Your task to perform on an android device: uninstall "DuckDuckGo Privacy Browser" Image 0: 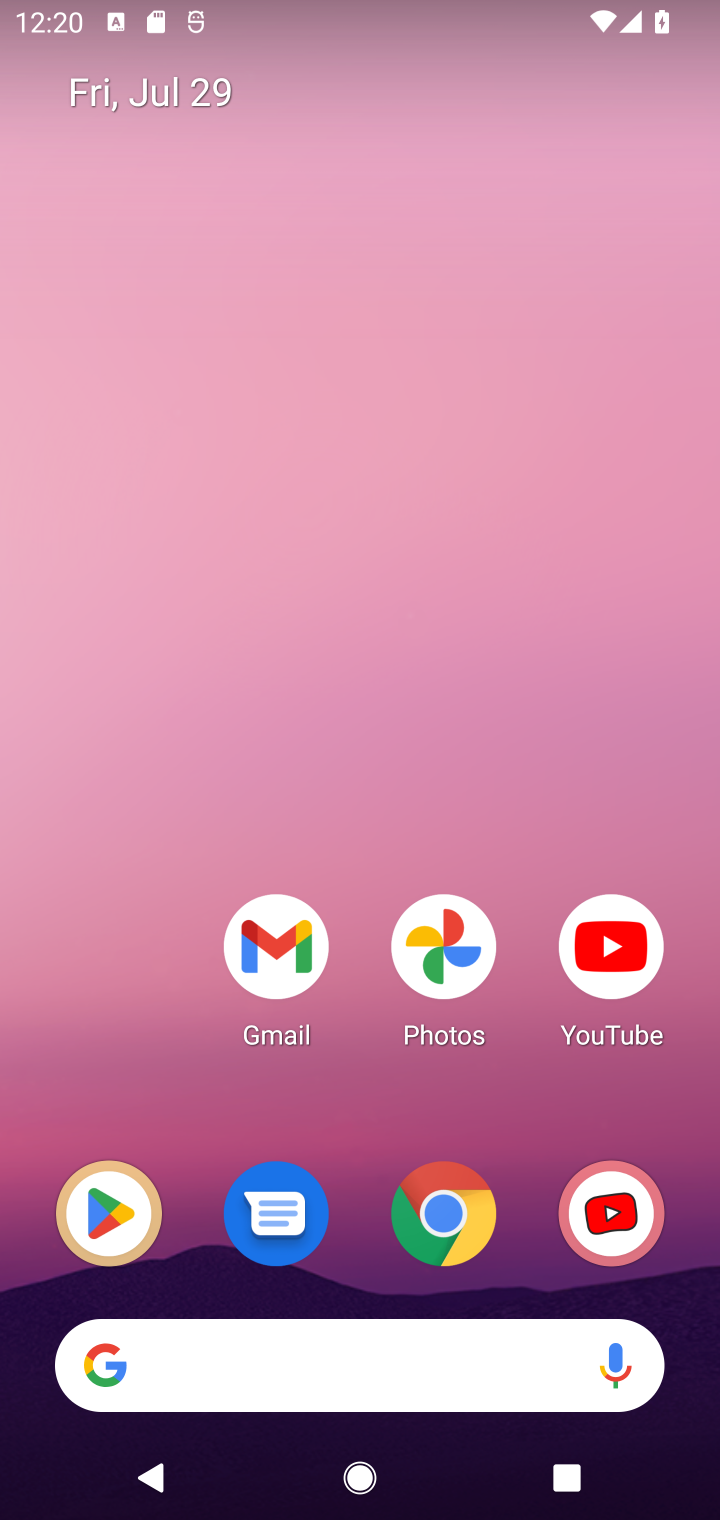
Step 0: drag from (417, 1318) to (402, 355)
Your task to perform on an android device: uninstall "DuckDuckGo Privacy Browser" Image 1: 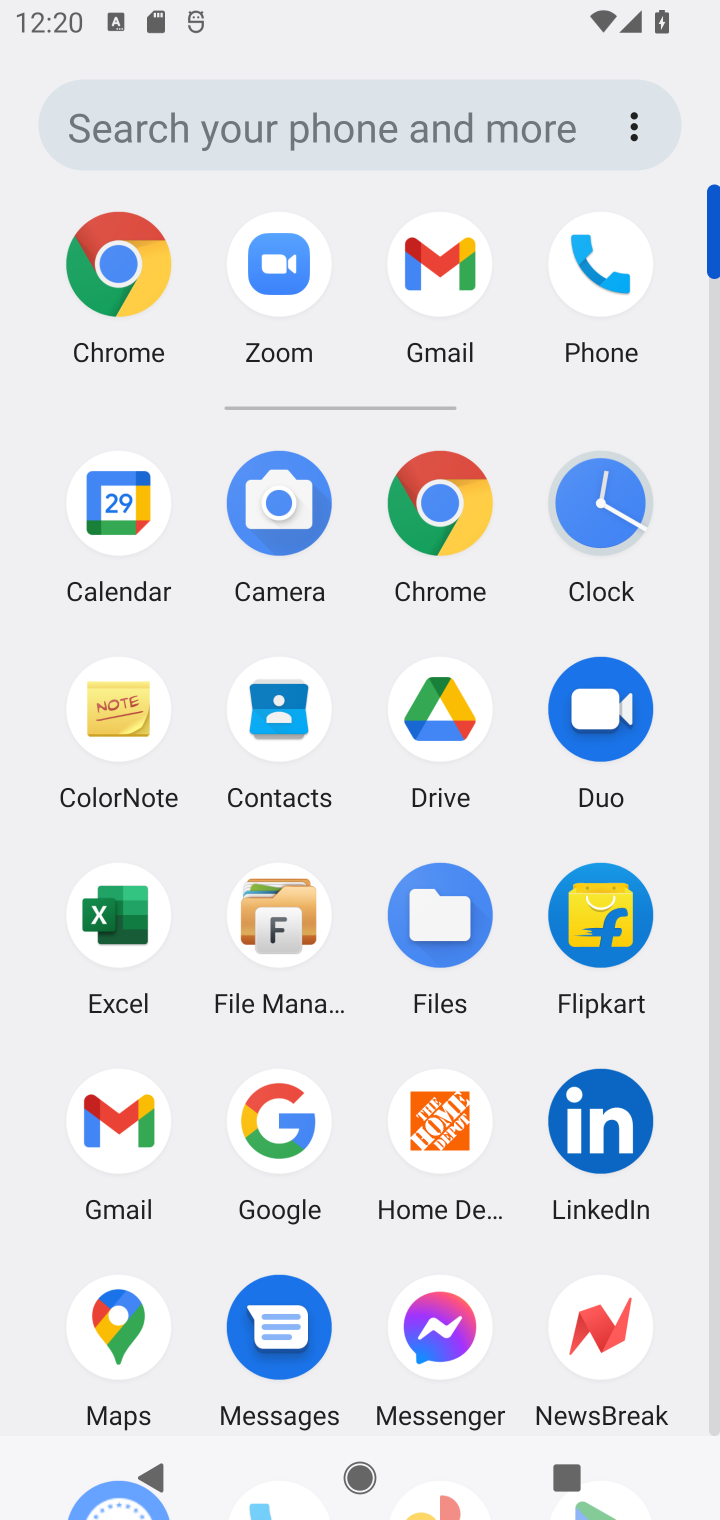
Step 1: click (208, 1383)
Your task to perform on an android device: uninstall "DuckDuckGo Privacy Browser" Image 2: 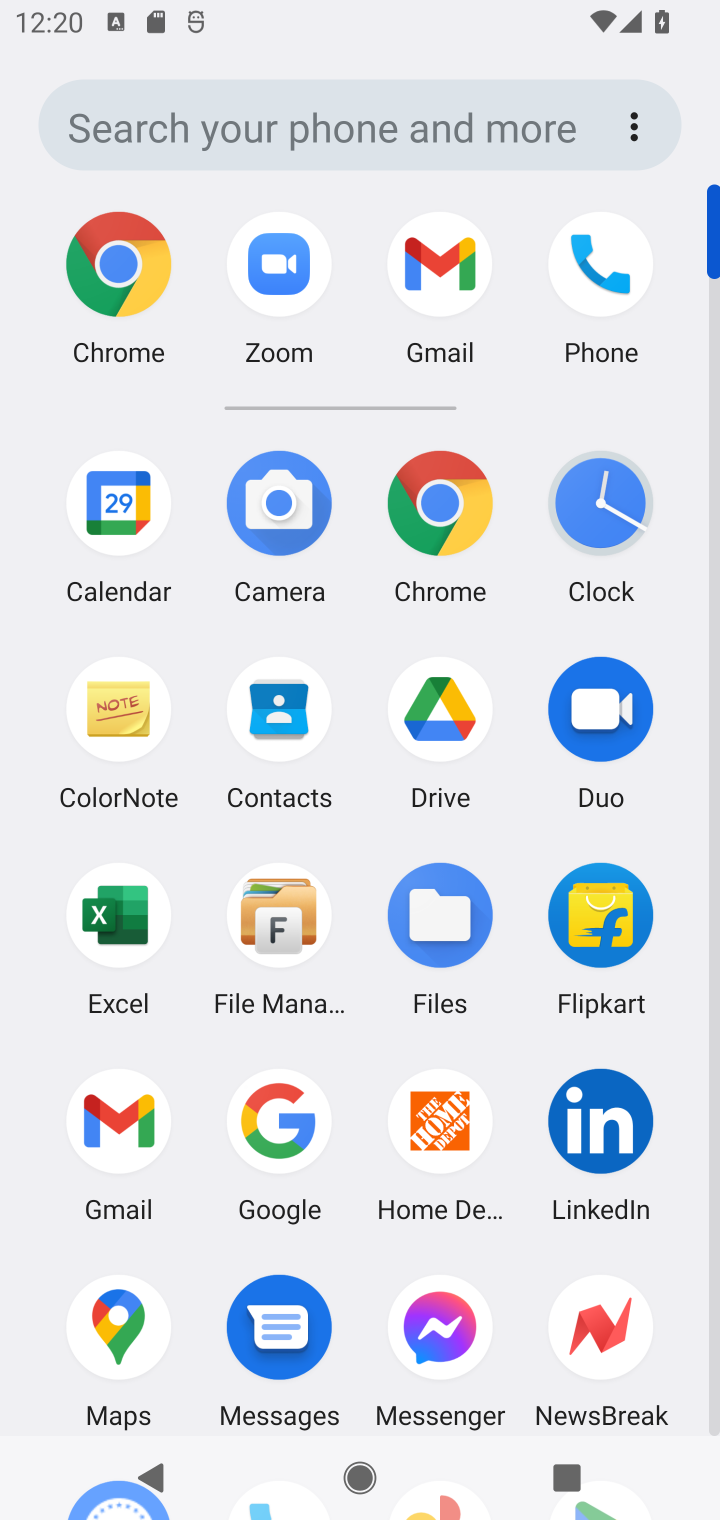
Step 2: drag from (217, 665) to (217, 556)
Your task to perform on an android device: uninstall "DuckDuckGo Privacy Browser" Image 3: 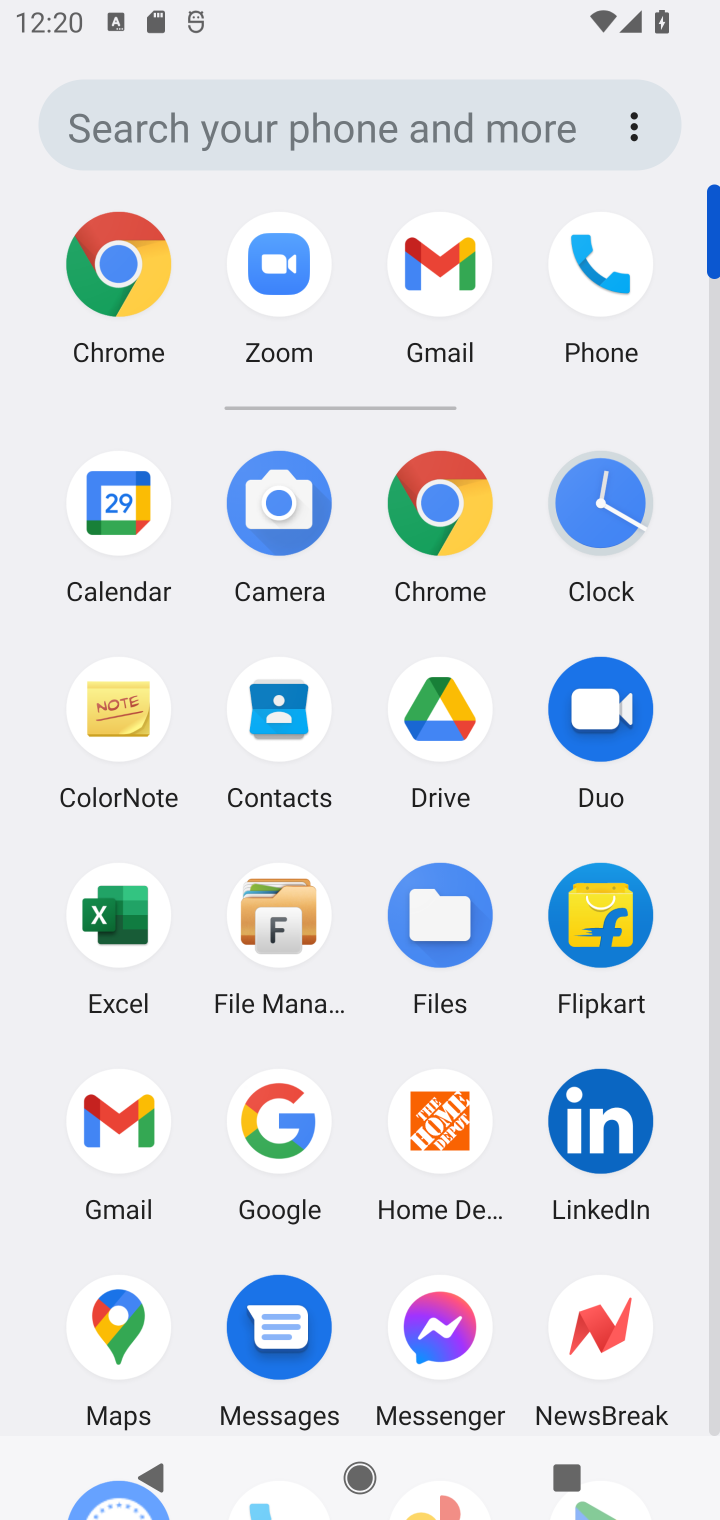
Step 3: drag from (368, 1403) to (300, 479)
Your task to perform on an android device: uninstall "DuckDuckGo Privacy Browser" Image 4: 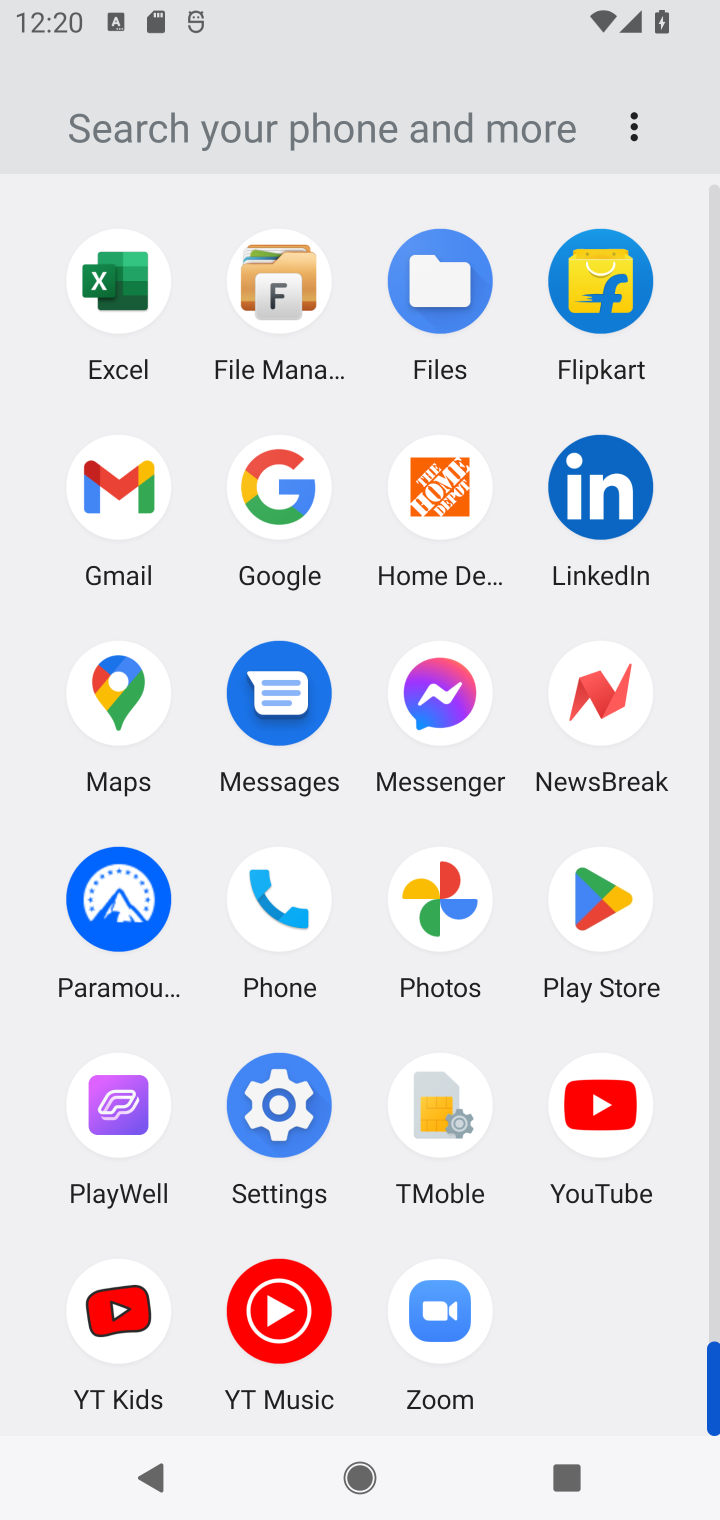
Step 4: click (589, 911)
Your task to perform on an android device: uninstall "DuckDuckGo Privacy Browser" Image 5: 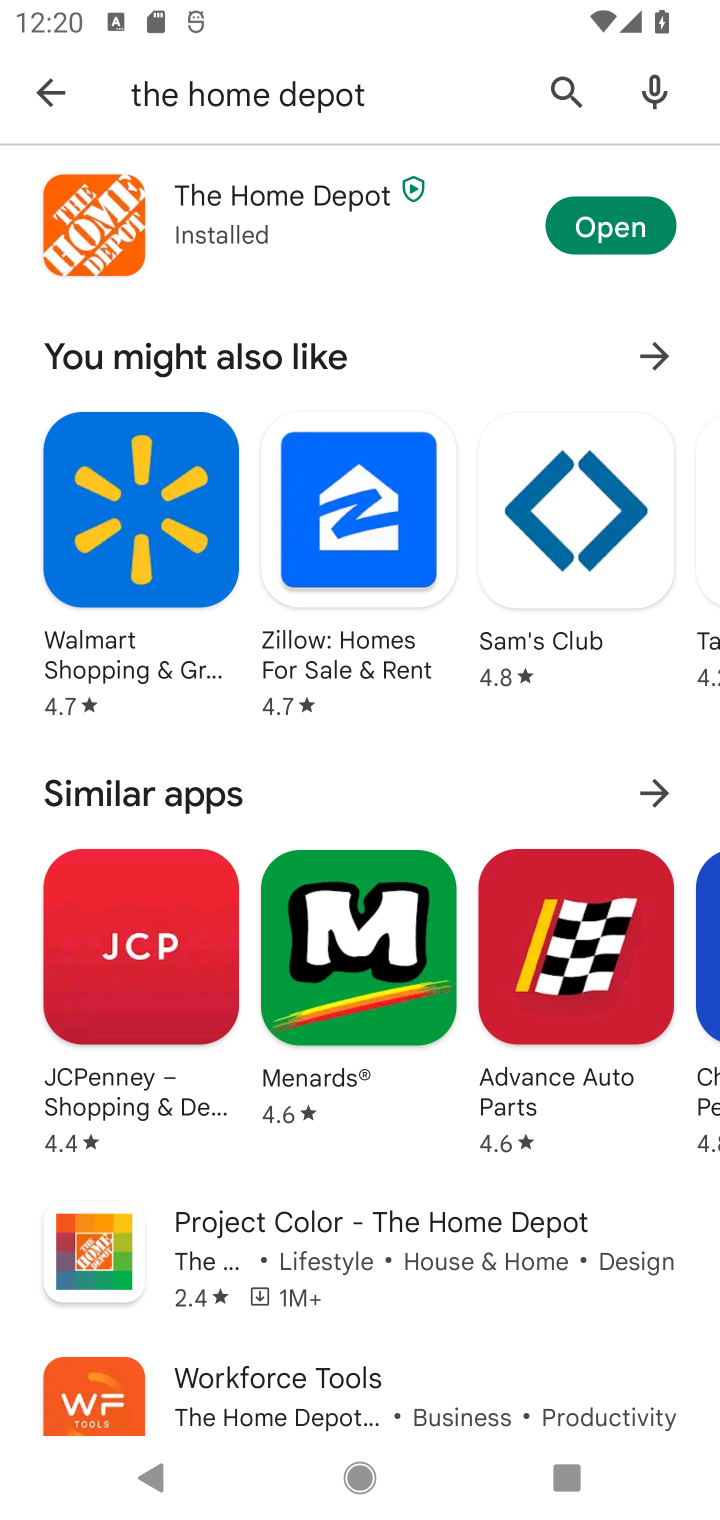
Step 5: click (561, 80)
Your task to perform on an android device: uninstall "DuckDuckGo Privacy Browser" Image 6: 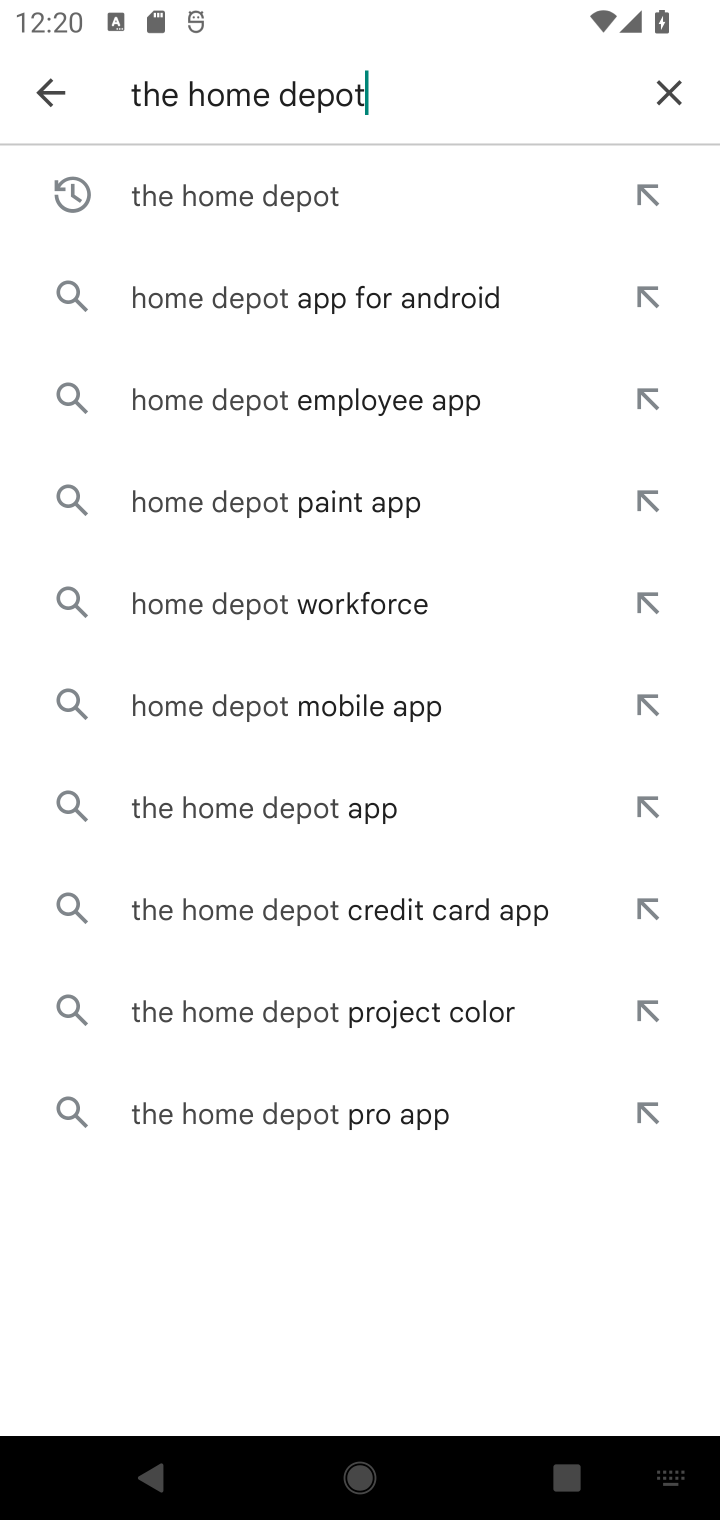
Step 6: click (657, 91)
Your task to perform on an android device: uninstall "DuckDuckGo Privacy Browser" Image 7: 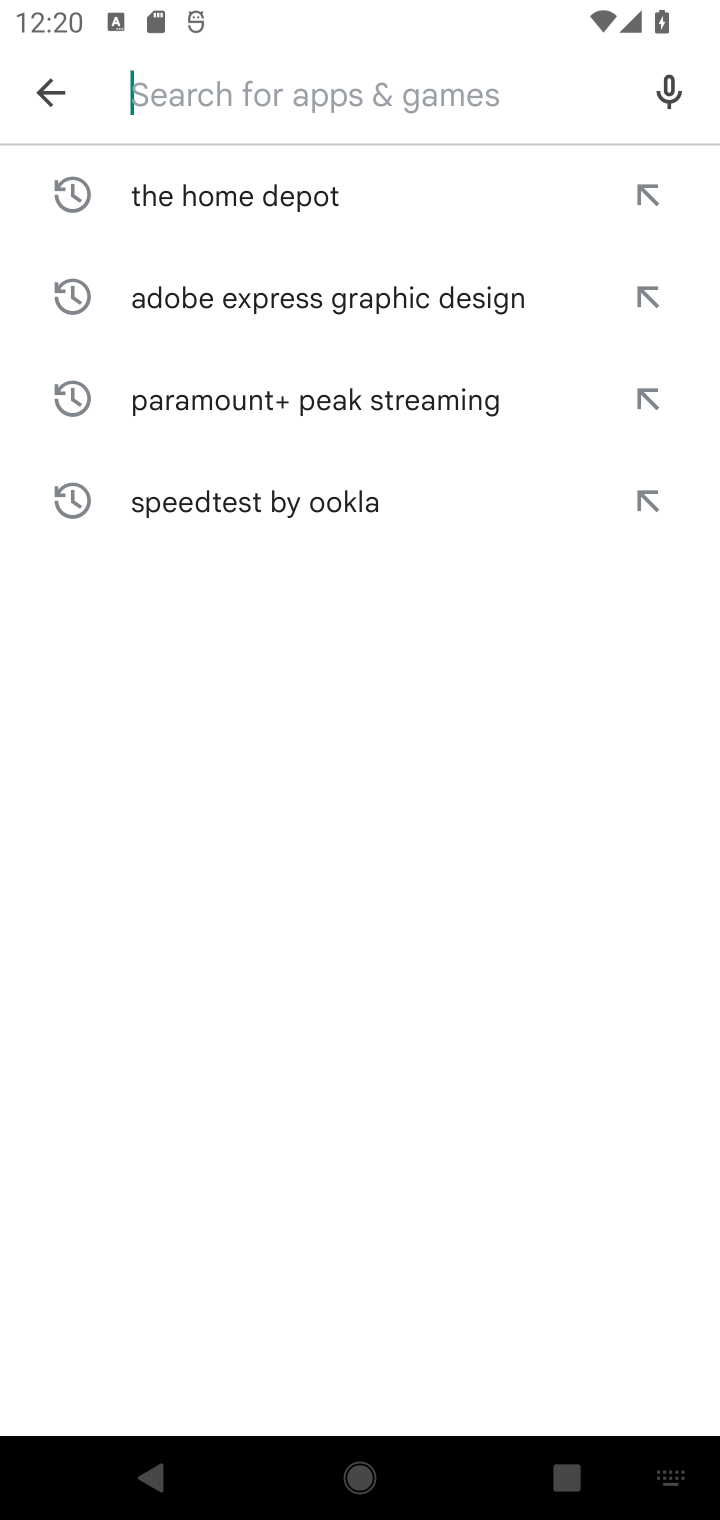
Step 7: type "DuckDuckGo Privacy Browser"
Your task to perform on an android device: uninstall "DuckDuckGo Privacy Browser" Image 8: 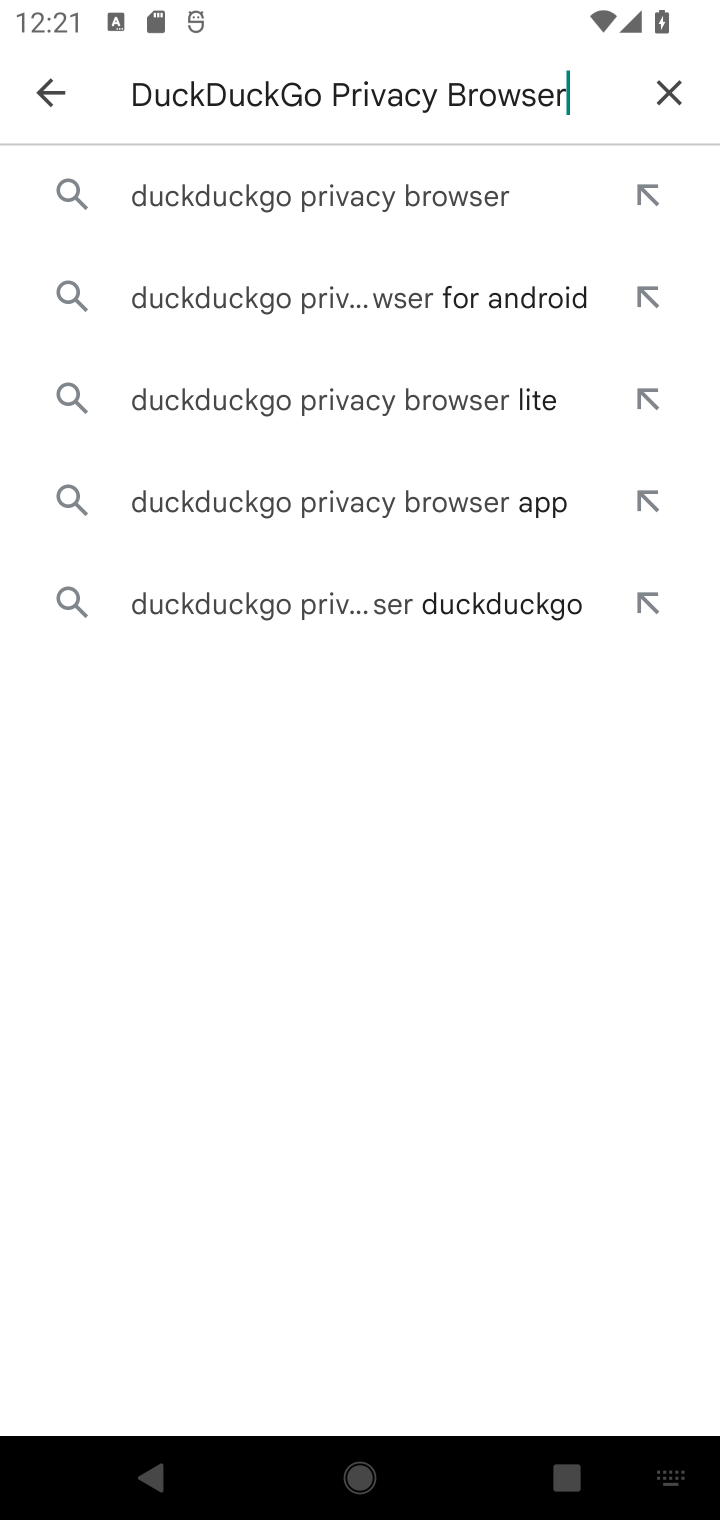
Step 8: click (415, 192)
Your task to perform on an android device: uninstall "DuckDuckGo Privacy Browser" Image 9: 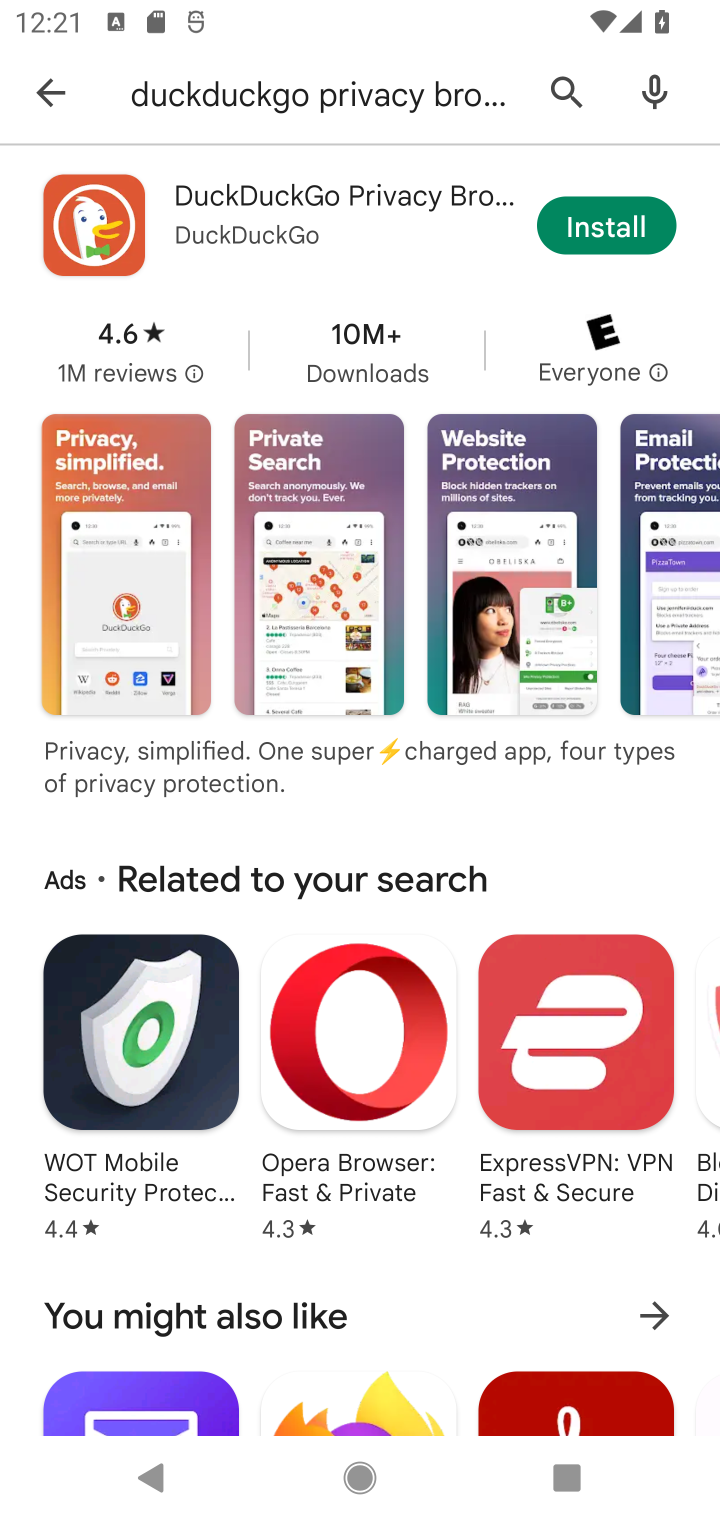
Step 9: task complete